Your task to perform on an android device: find photos in the google photos app Image 0: 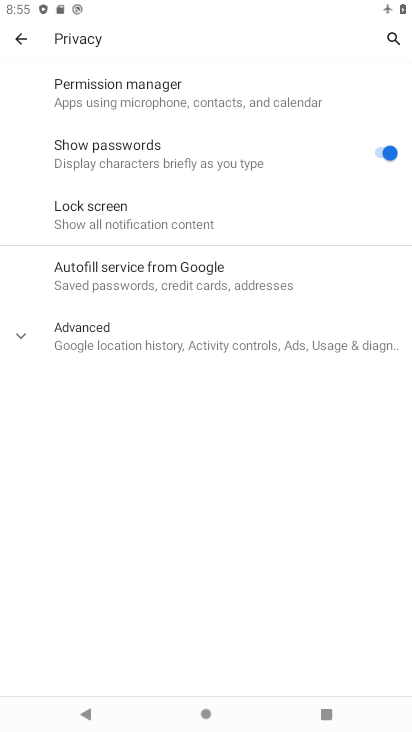
Step 0: click (22, 32)
Your task to perform on an android device: find photos in the google photos app Image 1: 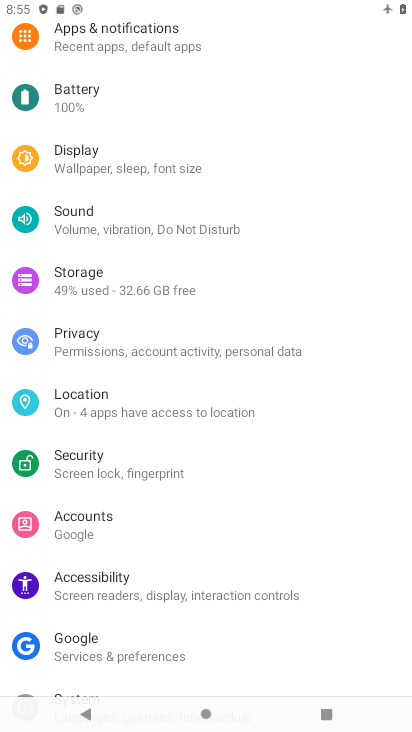
Step 1: press back button
Your task to perform on an android device: find photos in the google photos app Image 2: 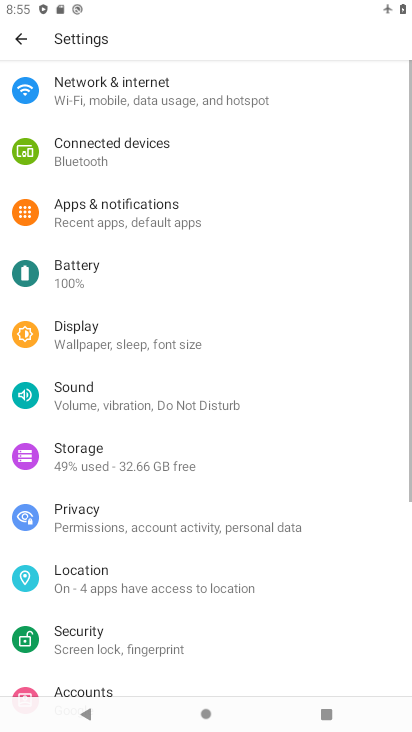
Step 2: click (16, 42)
Your task to perform on an android device: find photos in the google photos app Image 3: 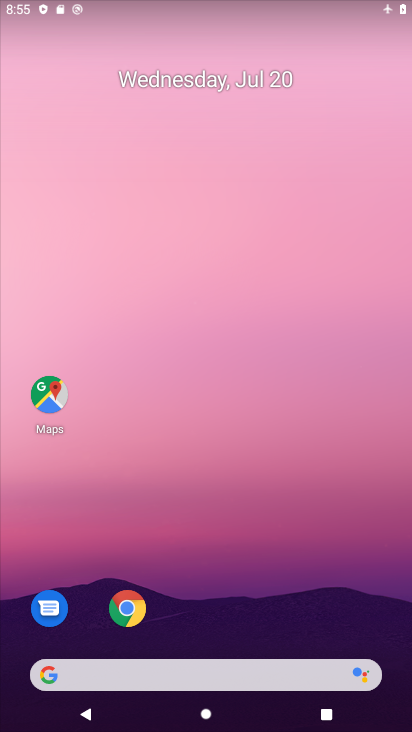
Step 3: drag from (211, 619) to (132, 77)
Your task to perform on an android device: find photos in the google photos app Image 4: 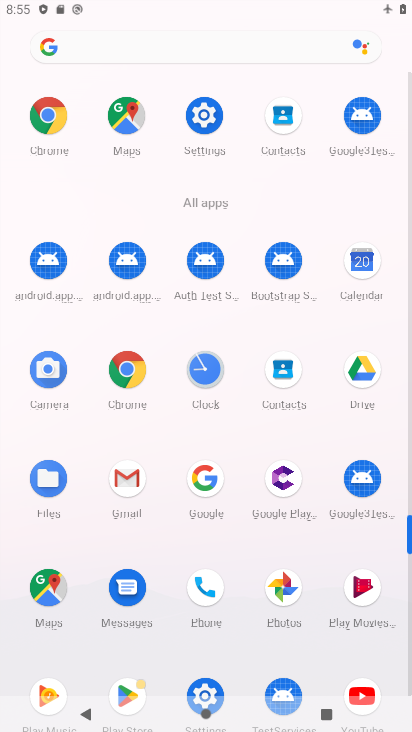
Step 4: click (275, 586)
Your task to perform on an android device: find photos in the google photos app Image 5: 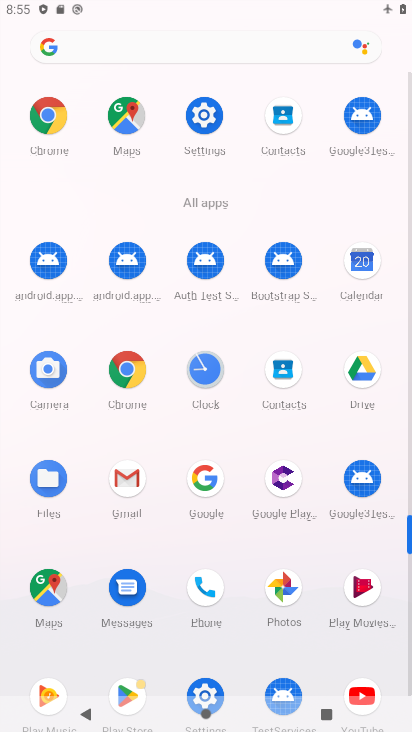
Step 5: click (275, 586)
Your task to perform on an android device: find photos in the google photos app Image 6: 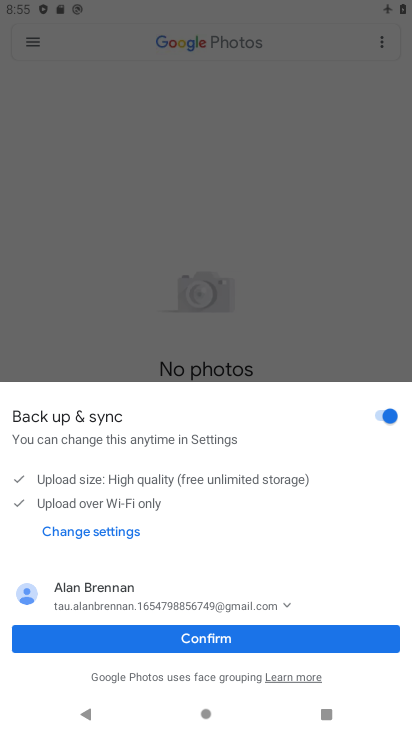
Step 6: click (221, 639)
Your task to perform on an android device: find photos in the google photos app Image 7: 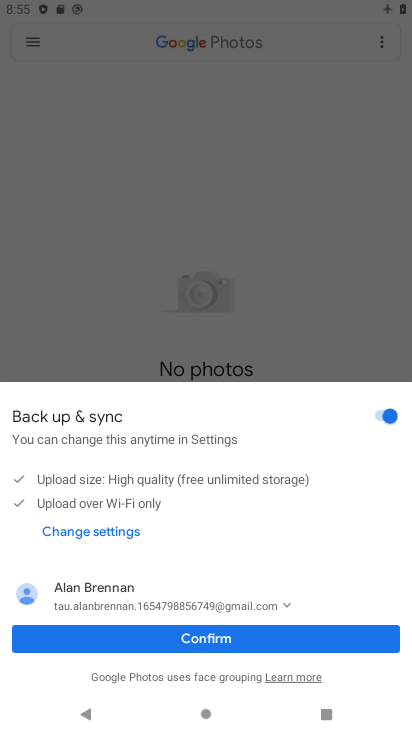
Step 7: click (222, 639)
Your task to perform on an android device: find photos in the google photos app Image 8: 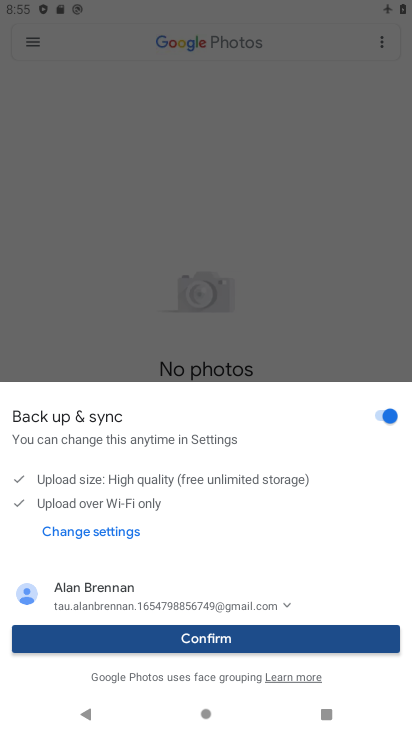
Step 8: click (224, 639)
Your task to perform on an android device: find photos in the google photos app Image 9: 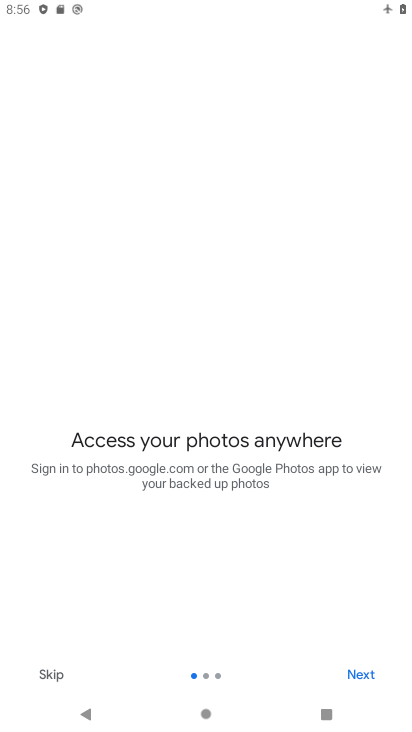
Step 9: press back button
Your task to perform on an android device: find photos in the google photos app Image 10: 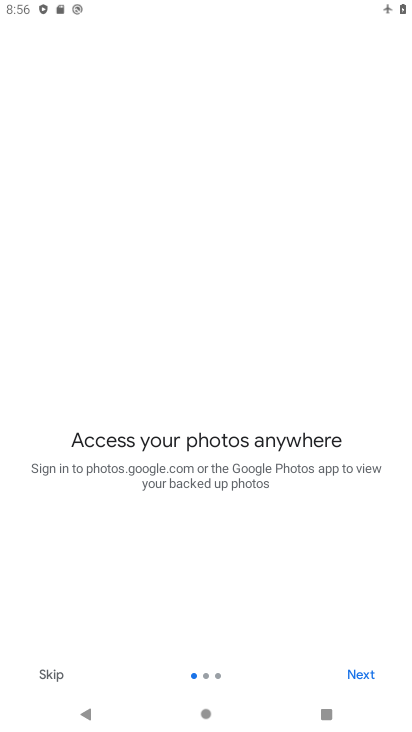
Step 10: press back button
Your task to perform on an android device: find photos in the google photos app Image 11: 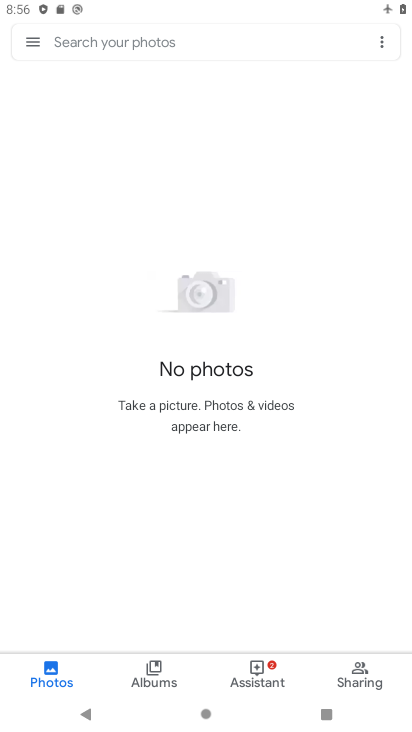
Step 11: press back button
Your task to perform on an android device: find photos in the google photos app Image 12: 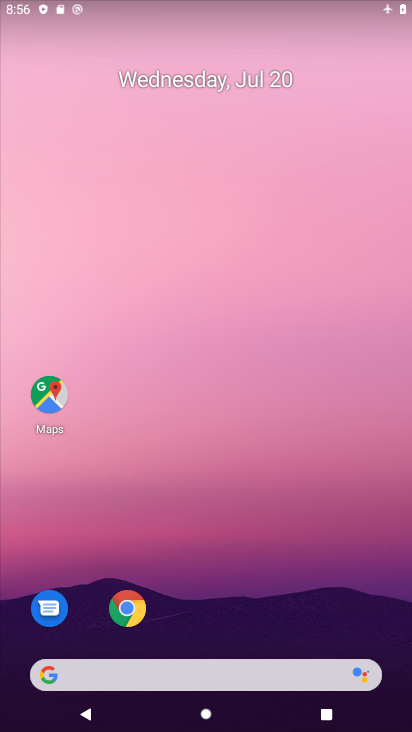
Step 12: drag from (253, 691) to (244, 268)
Your task to perform on an android device: find photos in the google photos app Image 13: 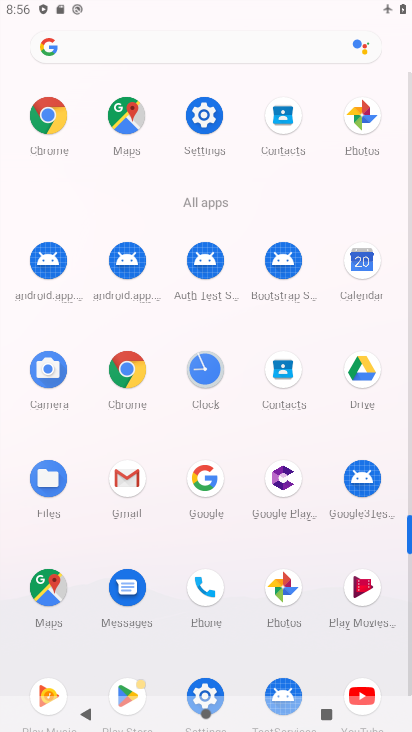
Step 13: click (286, 574)
Your task to perform on an android device: find photos in the google photos app Image 14: 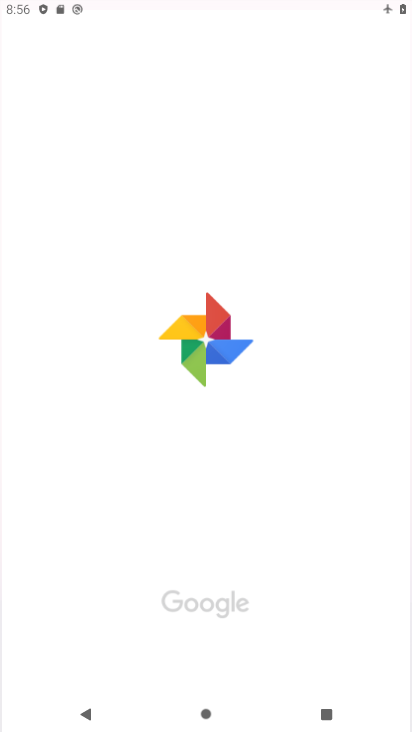
Step 14: click (284, 576)
Your task to perform on an android device: find photos in the google photos app Image 15: 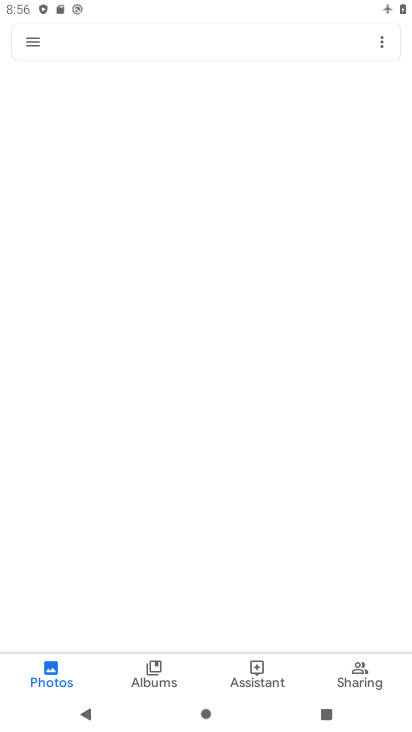
Step 15: click (285, 577)
Your task to perform on an android device: find photos in the google photos app Image 16: 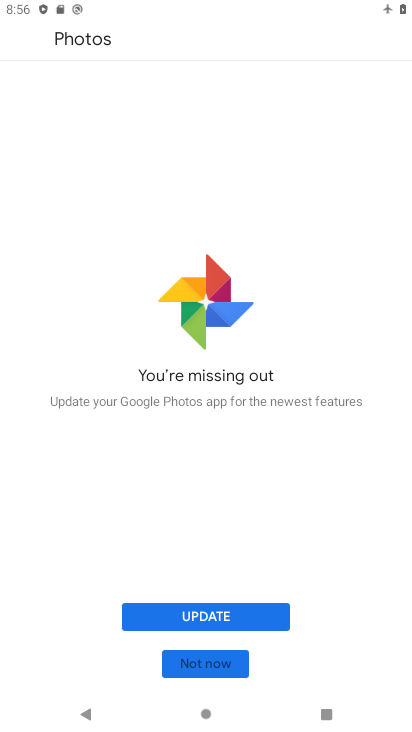
Step 16: click (198, 664)
Your task to perform on an android device: find photos in the google photos app Image 17: 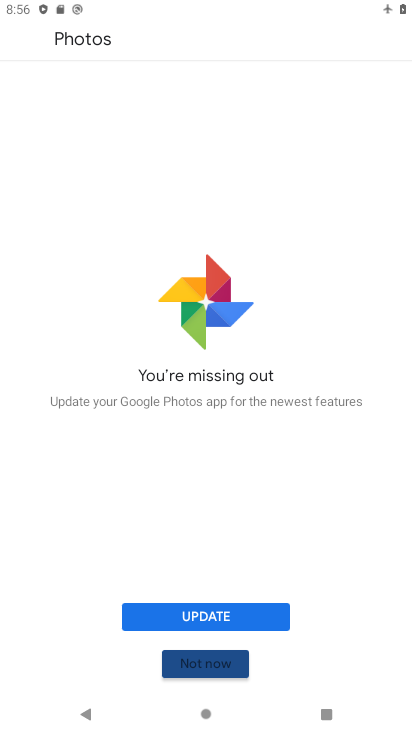
Step 17: click (200, 663)
Your task to perform on an android device: find photos in the google photos app Image 18: 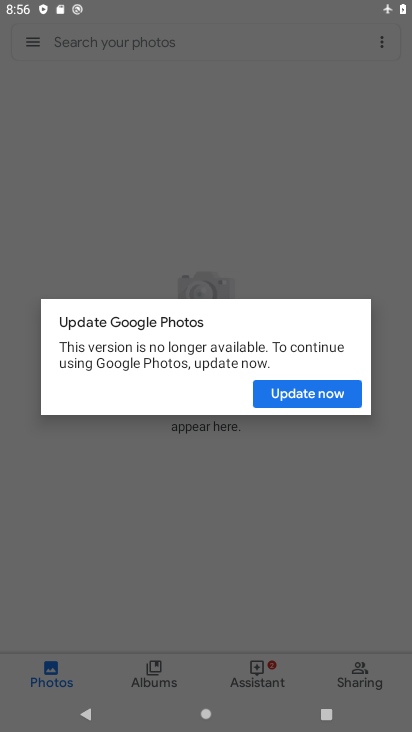
Step 18: click (172, 174)
Your task to perform on an android device: find photos in the google photos app Image 19: 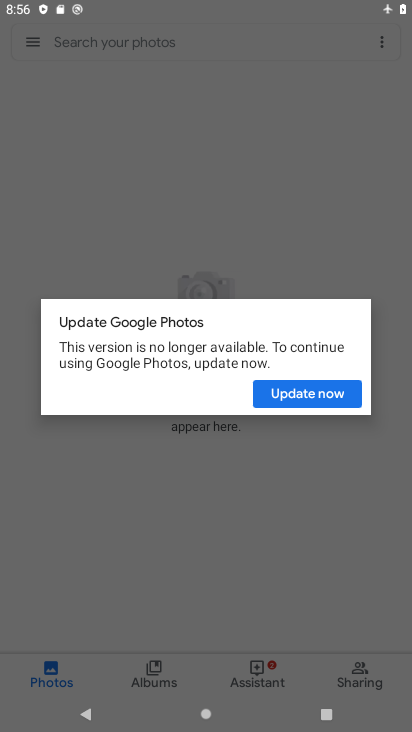
Step 19: click (172, 174)
Your task to perform on an android device: find photos in the google photos app Image 20: 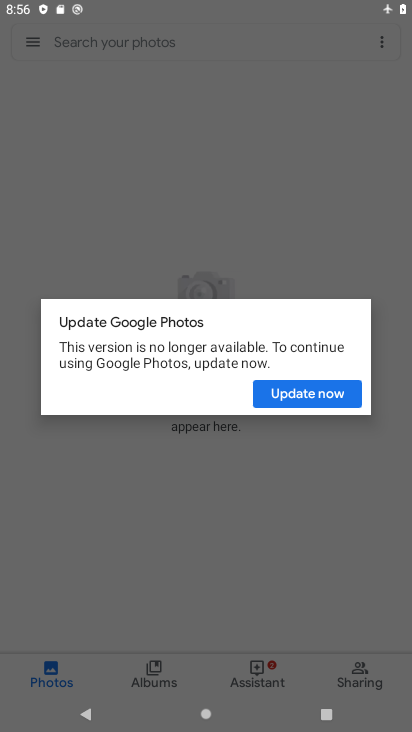
Step 20: click (172, 174)
Your task to perform on an android device: find photos in the google photos app Image 21: 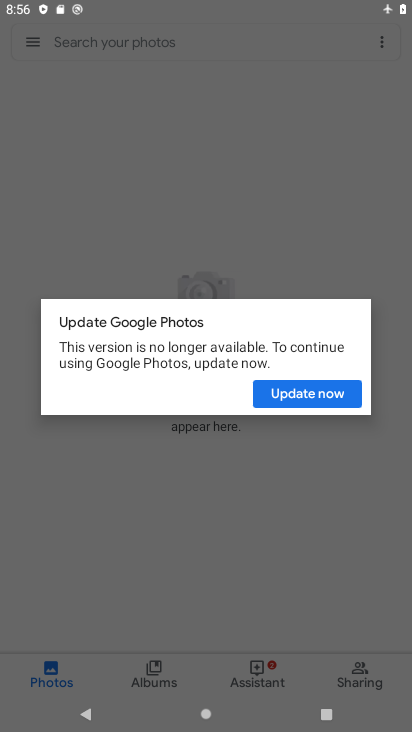
Step 21: click (283, 405)
Your task to perform on an android device: find photos in the google photos app Image 22: 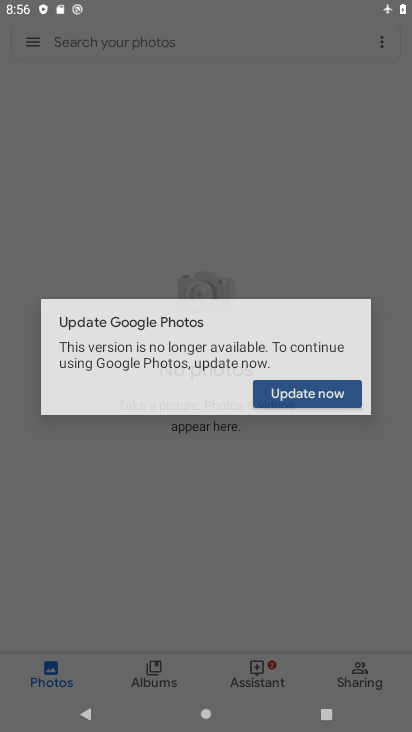
Step 22: click (292, 401)
Your task to perform on an android device: find photos in the google photos app Image 23: 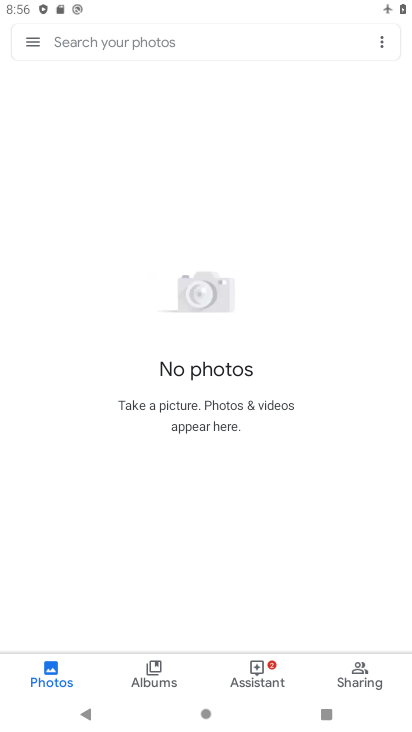
Step 23: task complete